Your task to perform on an android device: see tabs open on other devices in the chrome app Image 0: 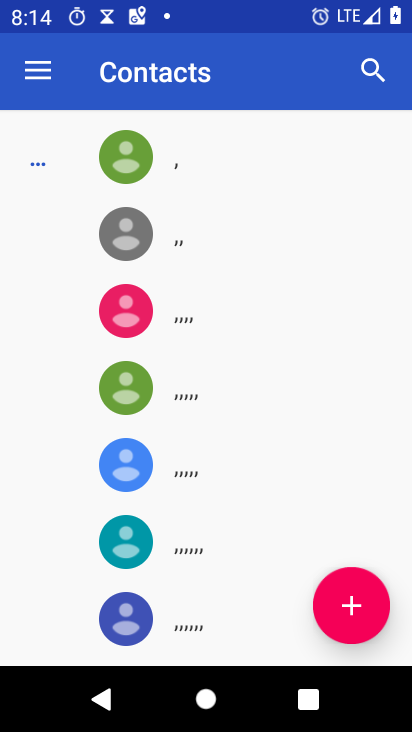
Step 0: press home button
Your task to perform on an android device: see tabs open on other devices in the chrome app Image 1: 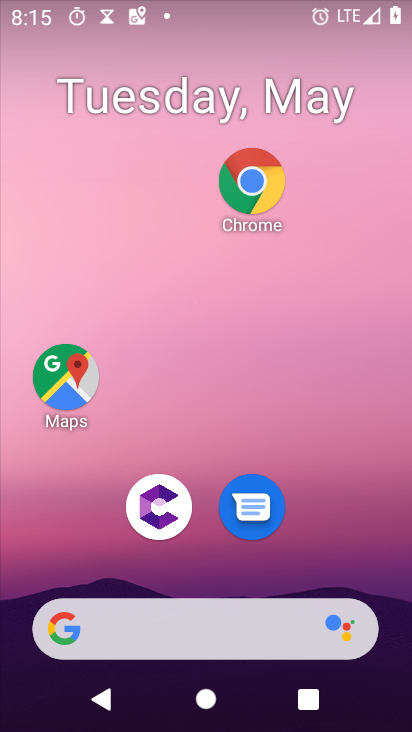
Step 1: click (260, 183)
Your task to perform on an android device: see tabs open on other devices in the chrome app Image 2: 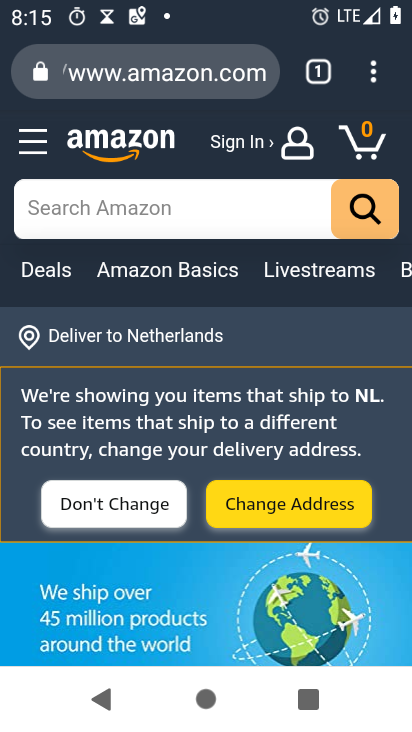
Step 2: click (374, 68)
Your task to perform on an android device: see tabs open on other devices in the chrome app Image 3: 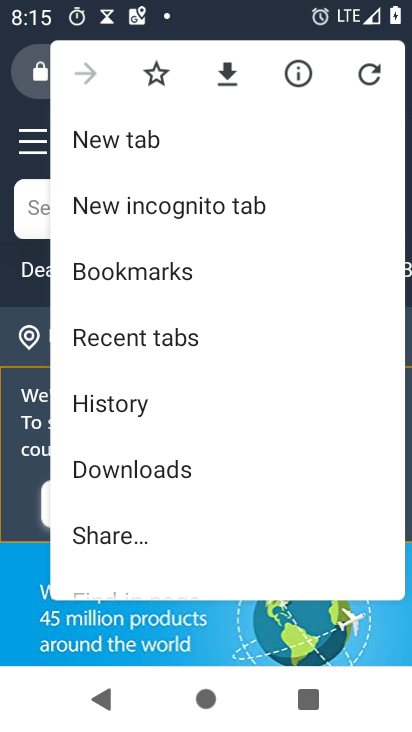
Step 3: click (145, 347)
Your task to perform on an android device: see tabs open on other devices in the chrome app Image 4: 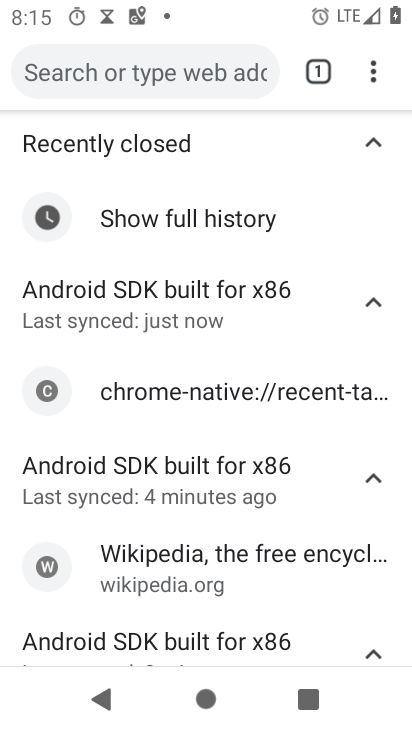
Step 4: task complete